Your task to perform on an android device: open device folders in google photos Image 0: 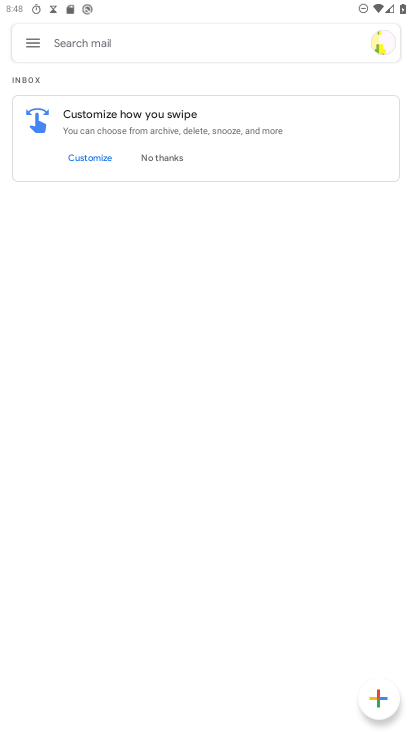
Step 0: press home button
Your task to perform on an android device: open device folders in google photos Image 1: 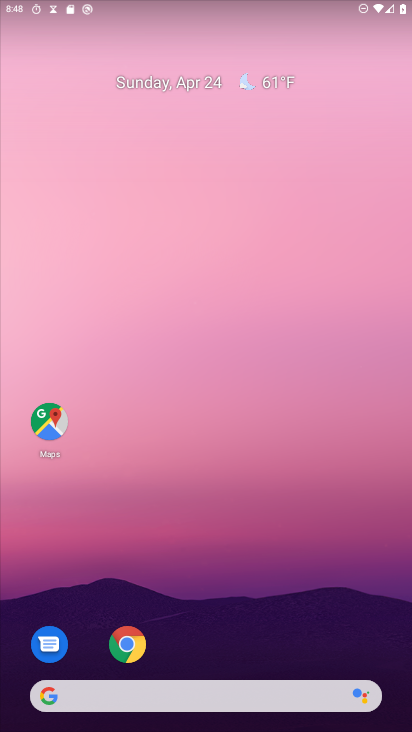
Step 1: drag from (203, 685) to (135, 13)
Your task to perform on an android device: open device folders in google photos Image 2: 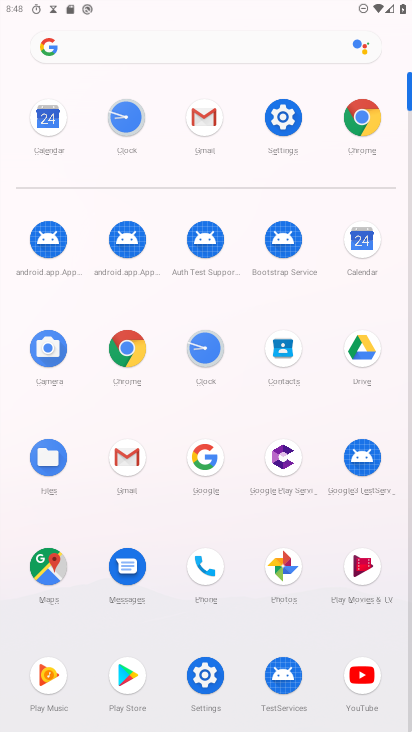
Step 2: click (278, 562)
Your task to perform on an android device: open device folders in google photos Image 3: 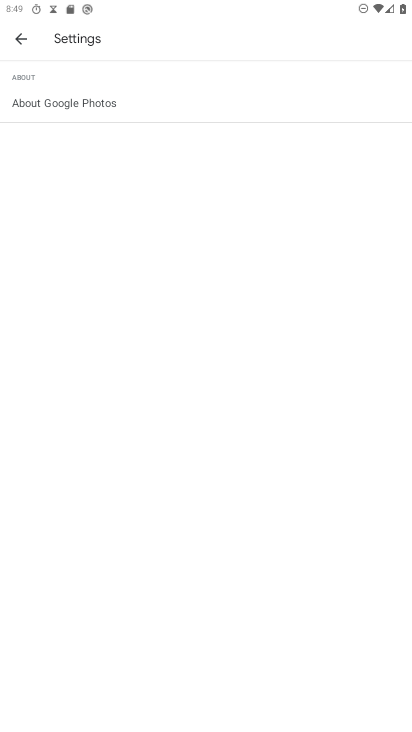
Step 3: click (25, 42)
Your task to perform on an android device: open device folders in google photos Image 4: 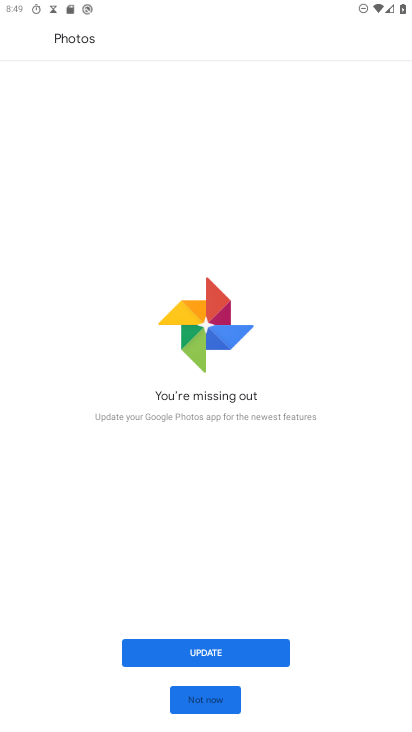
Step 4: click (215, 700)
Your task to perform on an android device: open device folders in google photos Image 5: 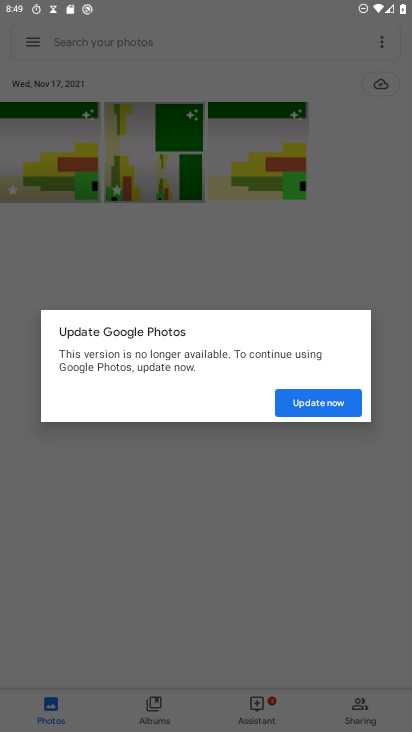
Step 5: click (298, 409)
Your task to perform on an android device: open device folders in google photos Image 6: 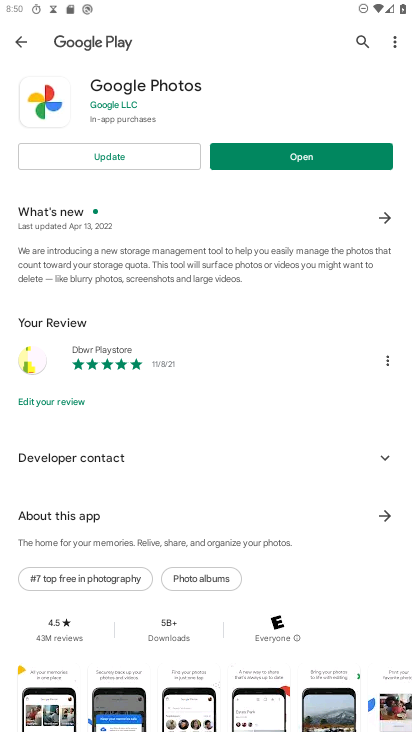
Step 6: click (155, 153)
Your task to perform on an android device: open device folders in google photos Image 7: 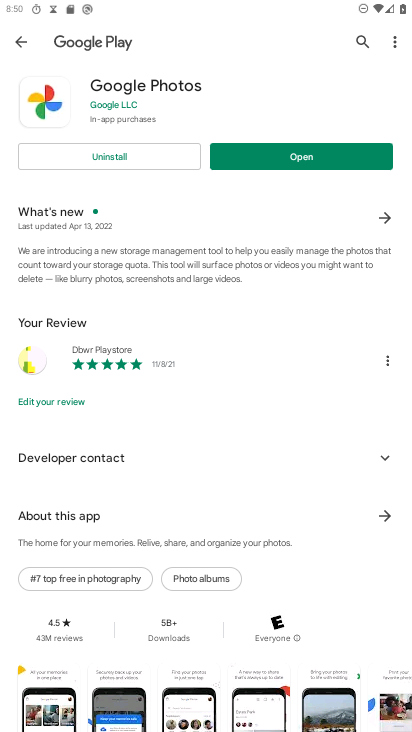
Step 7: click (326, 154)
Your task to perform on an android device: open device folders in google photos Image 8: 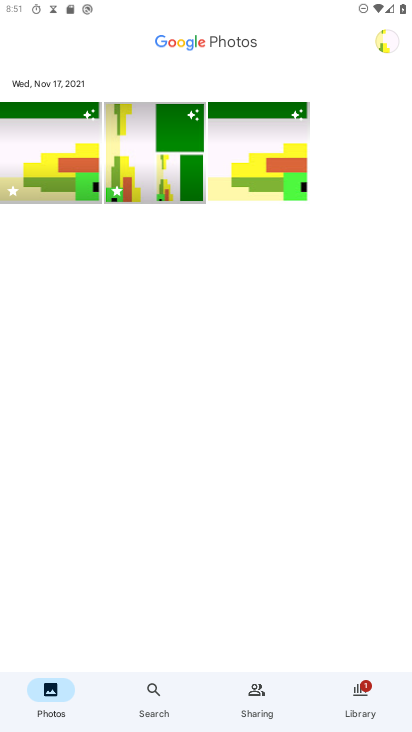
Step 8: click (363, 705)
Your task to perform on an android device: open device folders in google photos Image 9: 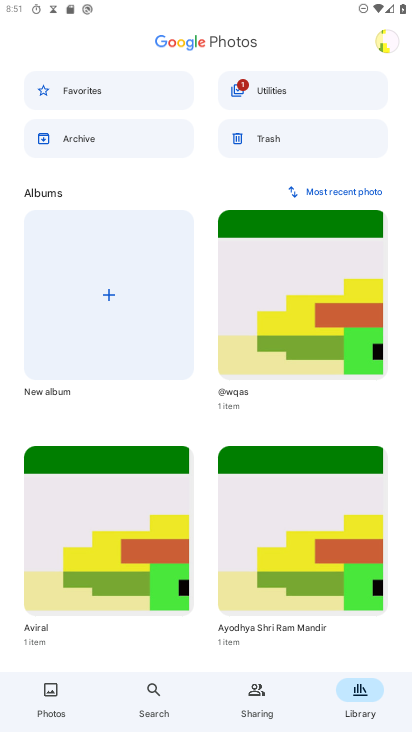
Step 9: task complete